Your task to perform on an android device: Open accessibility settings Image 0: 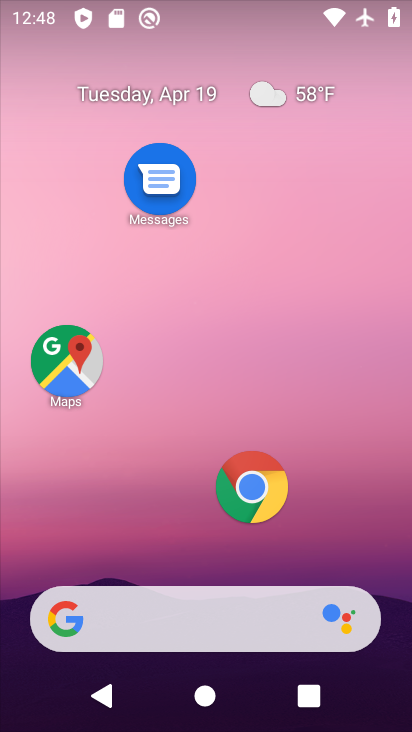
Step 0: drag from (220, 514) to (273, 243)
Your task to perform on an android device: Open accessibility settings Image 1: 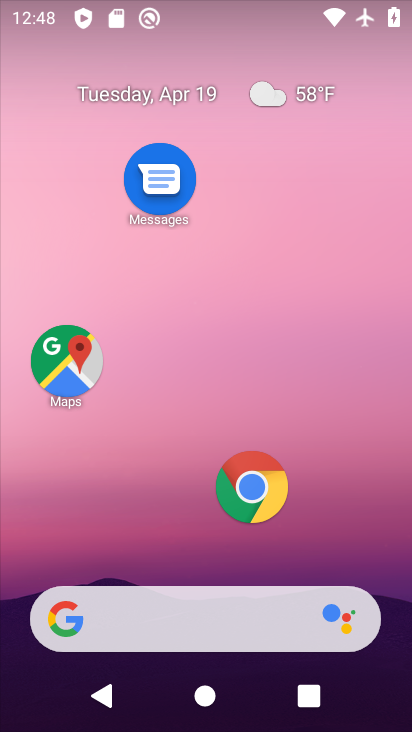
Step 1: drag from (177, 523) to (264, 213)
Your task to perform on an android device: Open accessibility settings Image 2: 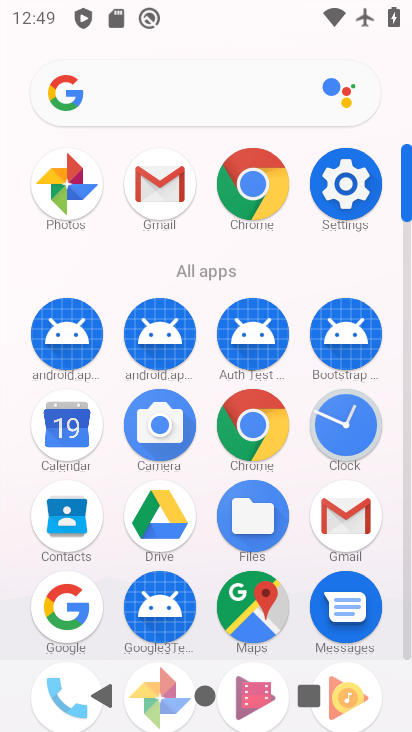
Step 2: click (340, 189)
Your task to perform on an android device: Open accessibility settings Image 3: 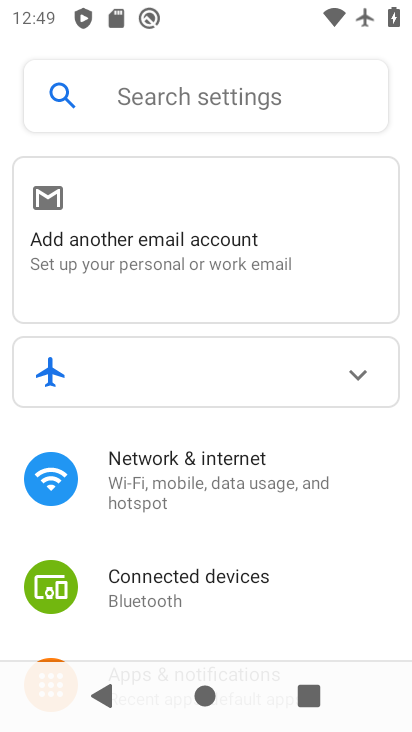
Step 3: drag from (176, 634) to (226, 249)
Your task to perform on an android device: Open accessibility settings Image 4: 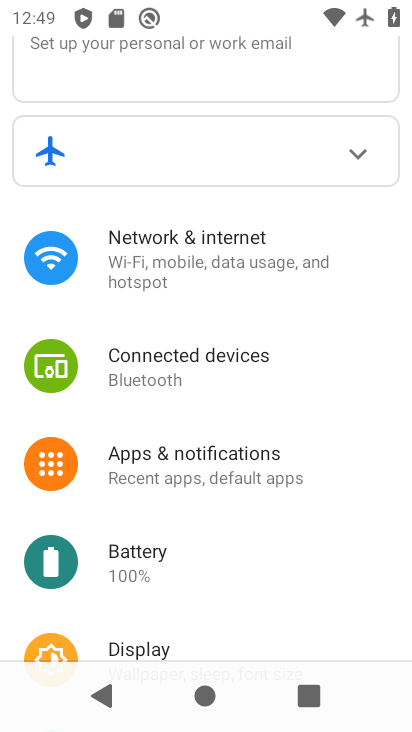
Step 4: drag from (181, 552) to (222, 310)
Your task to perform on an android device: Open accessibility settings Image 5: 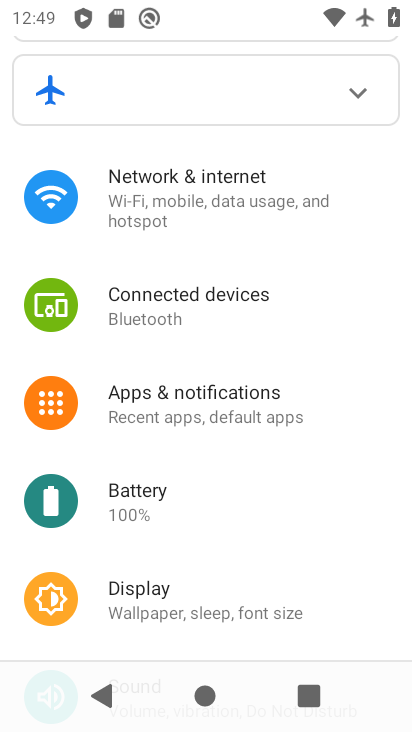
Step 5: drag from (220, 437) to (237, 364)
Your task to perform on an android device: Open accessibility settings Image 6: 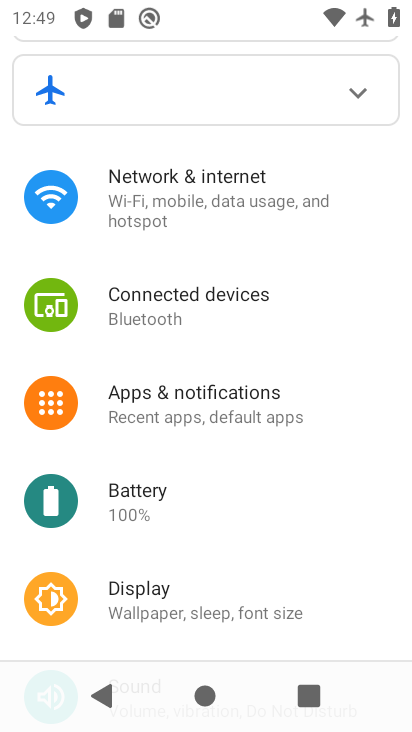
Step 6: drag from (175, 620) to (205, 388)
Your task to perform on an android device: Open accessibility settings Image 7: 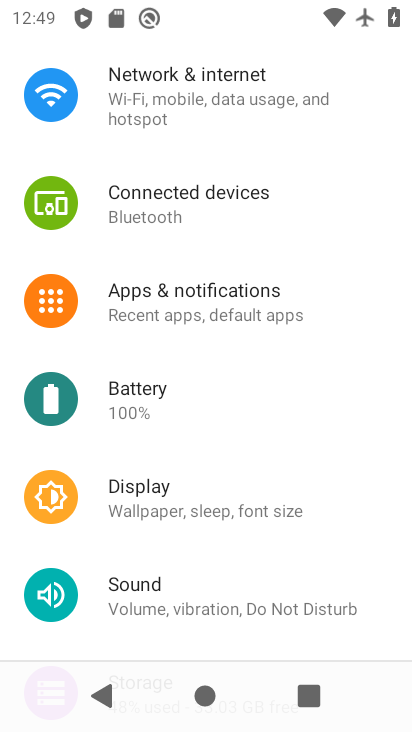
Step 7: drag from (202, 624) to (204, 355)
Your task to perform on an android device: Open accessibility settings Image 8: 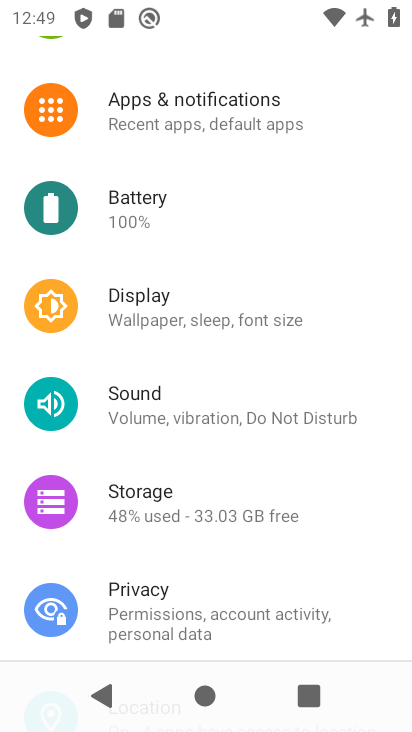
Step 8: drag from (183, 636) to (223, 308)
Your task to perform on an android device: Open accessibility settings Image 9: 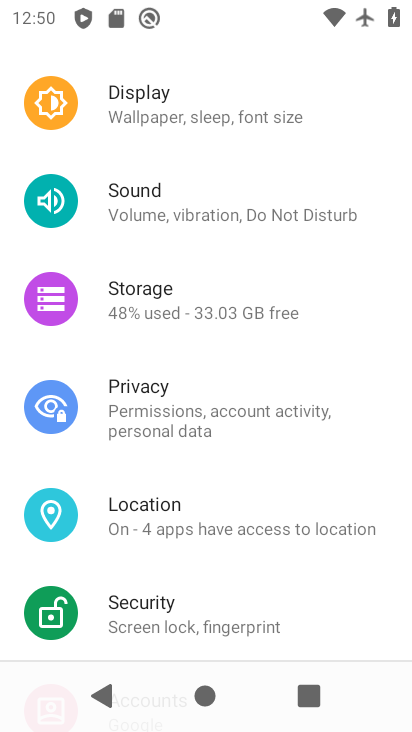
Step 9: drag from (184, 625) to (191, 304)
Your task to perform on an android device: Open accessibility settings Image 10: 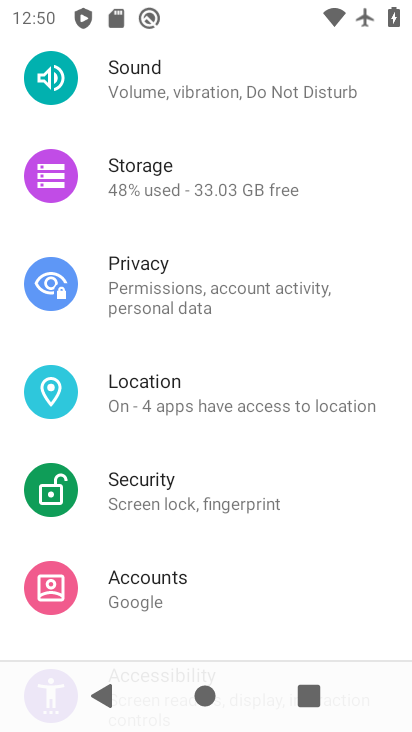
Step 10: drag from (154, 621) to (193, 389)
Your task to perform on an android device: Open accessibility settings Image 11: 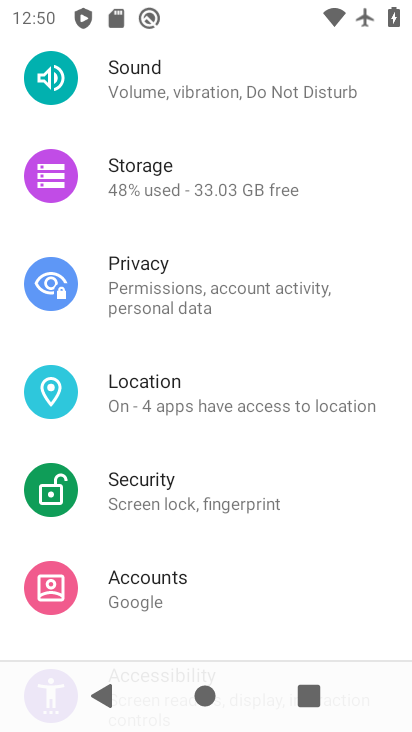
Step 11: drag from (162, 638) to (215, 421)
Your task to perform on an android device: Open accessibility settings Image 12: 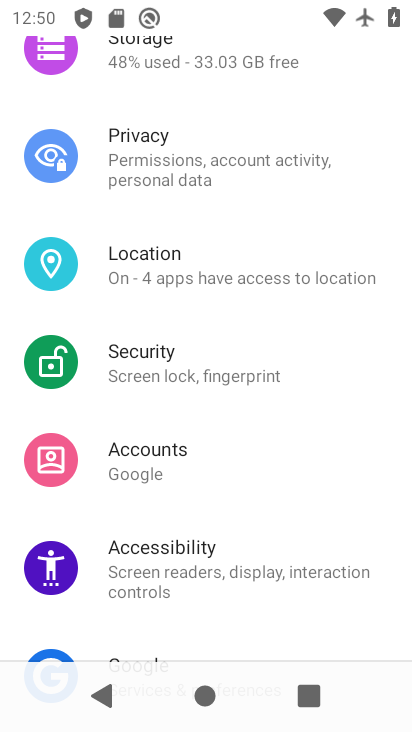
Step 12: click (188, 566)
Your task to perform on an android device: Open accessibility settings Image 13: 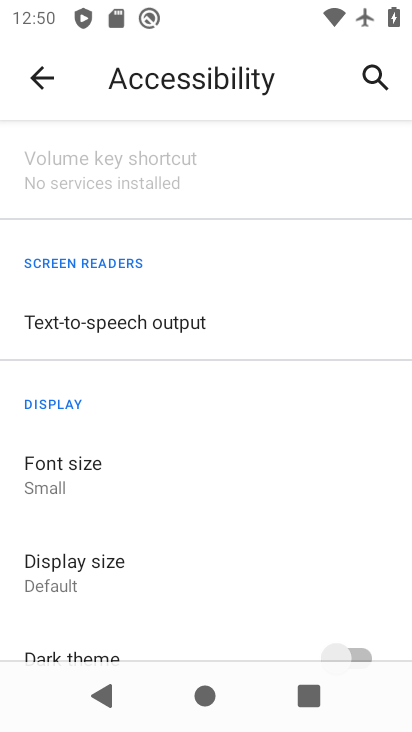
Step 13: task complete